Your task to perform on an android device: Open settings on Google Maps Image 0: 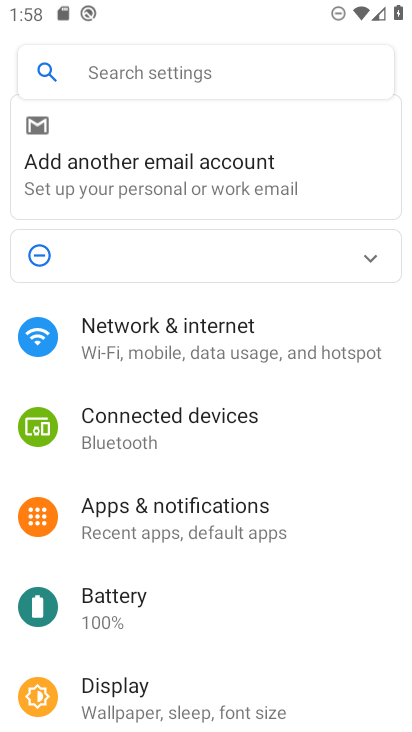
Step 0: press home button
Your task to perform on an android device: Open settings on Google Maps Image 1: 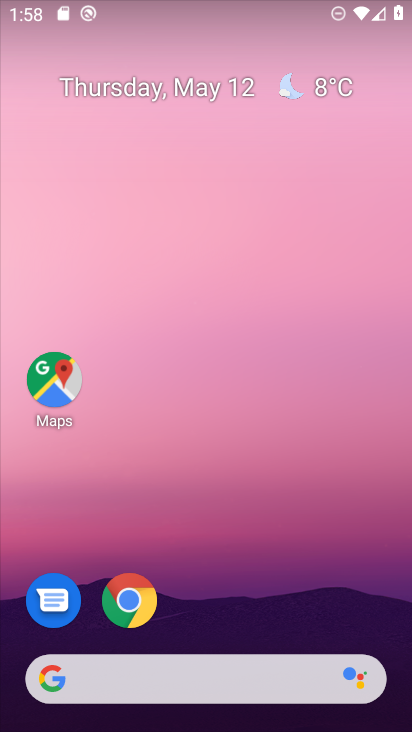
Step 1: drag from (201, 696) to (194, 17)
Your task to perform on an android device: Open settings on Google Maps Image 2: 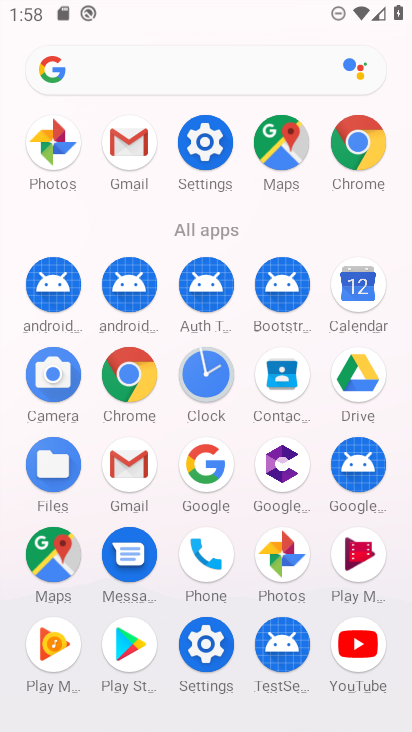
Step 2: click (49, 555)
Your task to perform on an android device: Open settings on Google Maps Image 3: 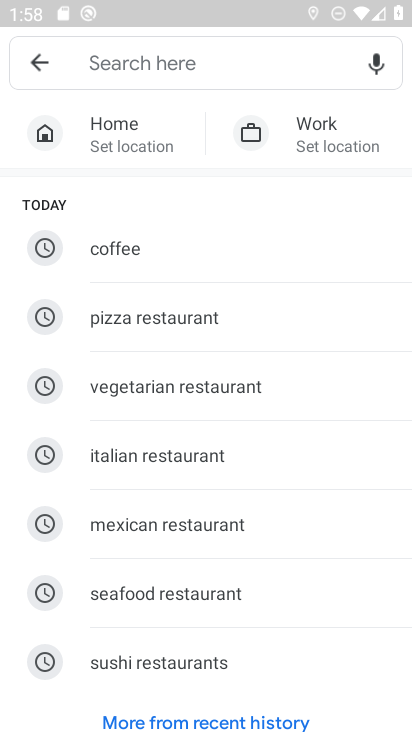
Step 3: click (31, 65)
Your task to perform on an android device: Open settings on Google Maps Image 4: 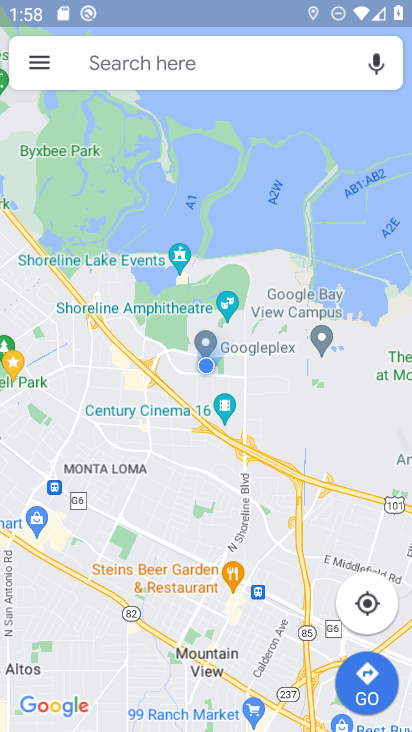
Step 4: click (41, 68)
Your task to perform on an android device: Open settings on Google Maps Image 5: 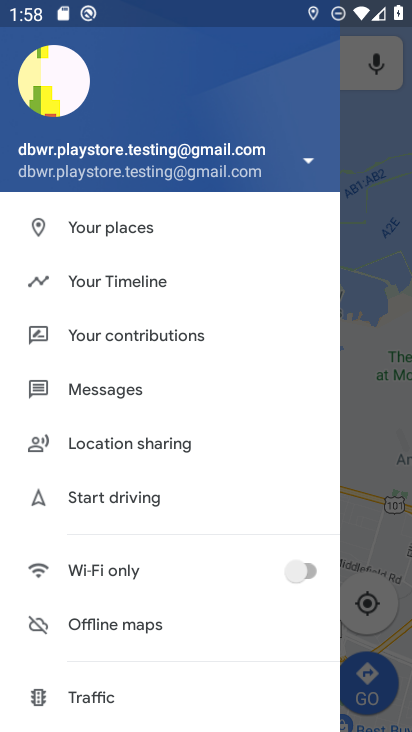
Step 5: drag from (166, 675) to (169, 327)
Your task to perform on an android device: Open settings on Google Maps Image 6: 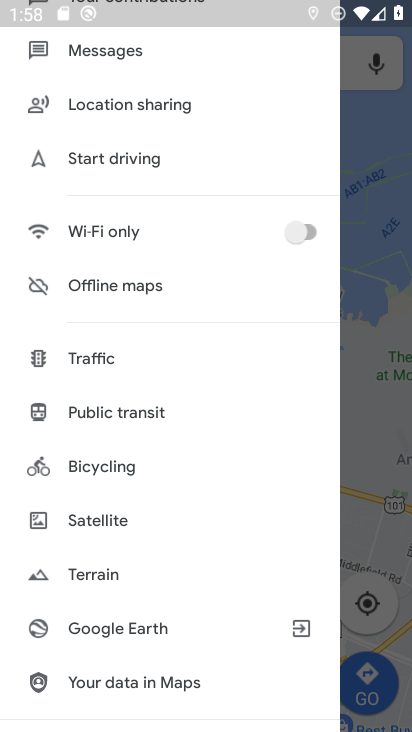
Step 6: drag from (99, 661) to (105, 365)
Your task to perform on an android device: Open settings on Google Maps Image 7: 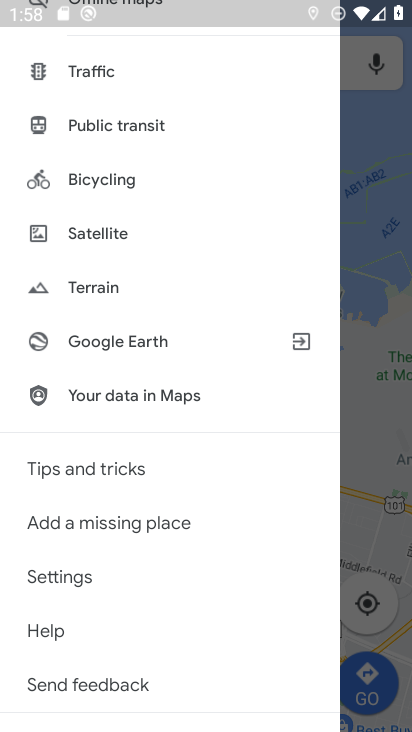
Step 7: click (69, 574)
Your task to perform on an android device: Open settings on Google Maps Image 8: 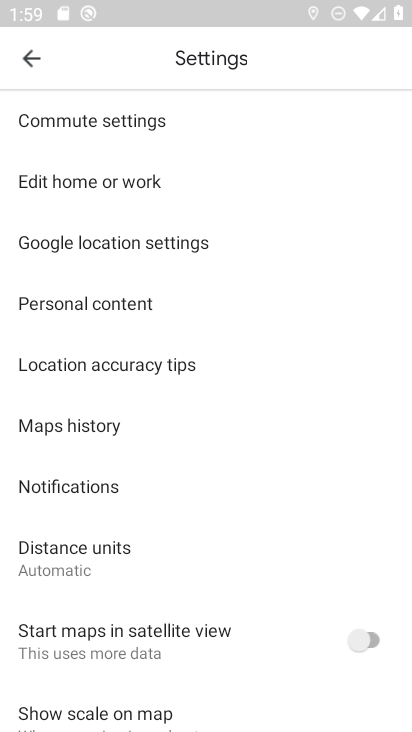
Step 8: task complete